Your task to perform on an android device: Open Wikipedia Image 0: 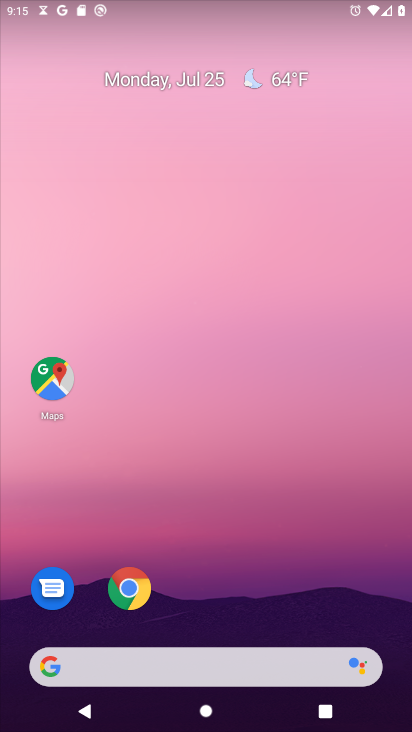
Step 0: drag from (212, 656) to (150, 36)
Your task to perform on an android device: Open Wikipedia Image 1: 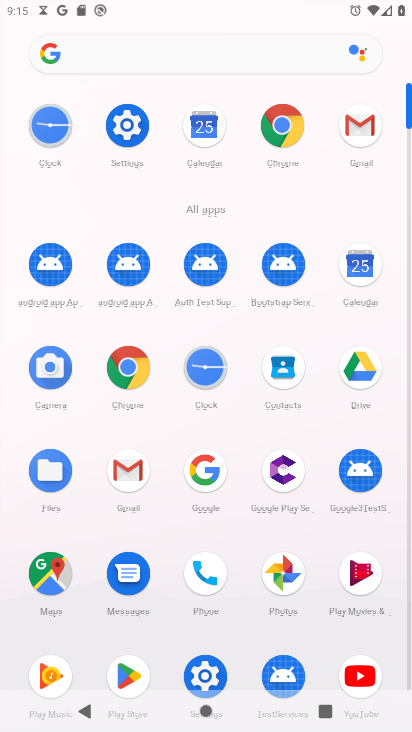
Step 1: click (289, 144)
Your task to perform on an android device: Open Wikipedia Image 2: 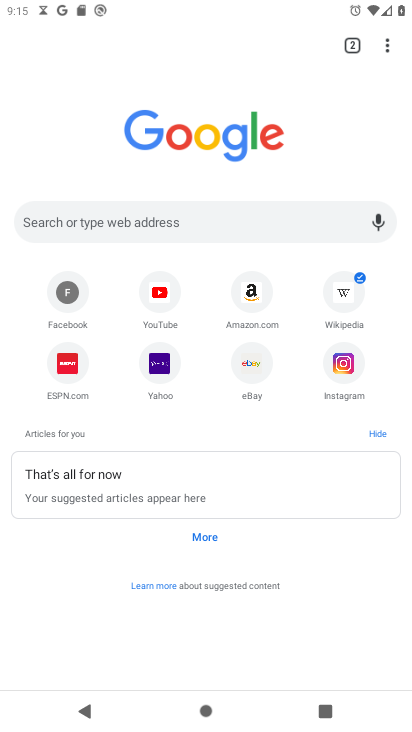
Step 2: click (350, 299)
Your task to perform on an android device: Open Wikipedia Image 3: 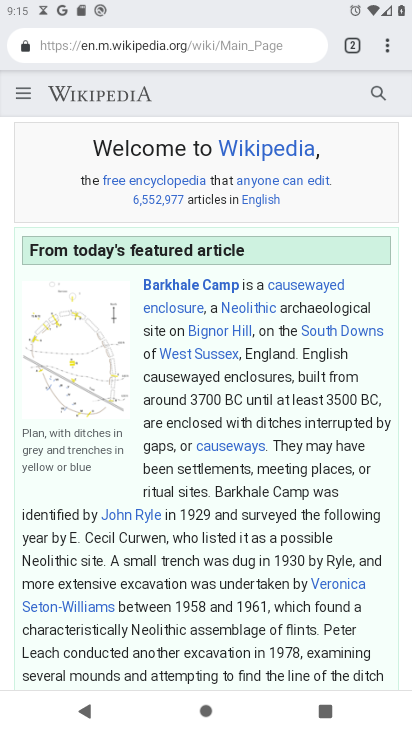
Step 3: task complete